Your task to perform on an android device: toggle pop-ups in chrome Image 0: 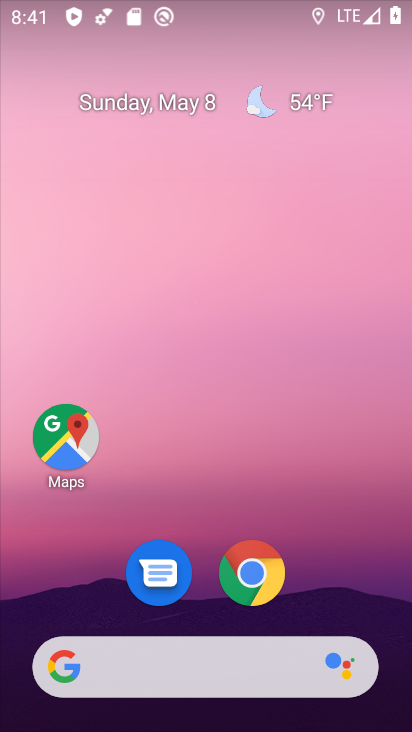
Step 0: click (256, 577)
Your task to perform on an android device: toggle pop-ups in chrome Image 1: 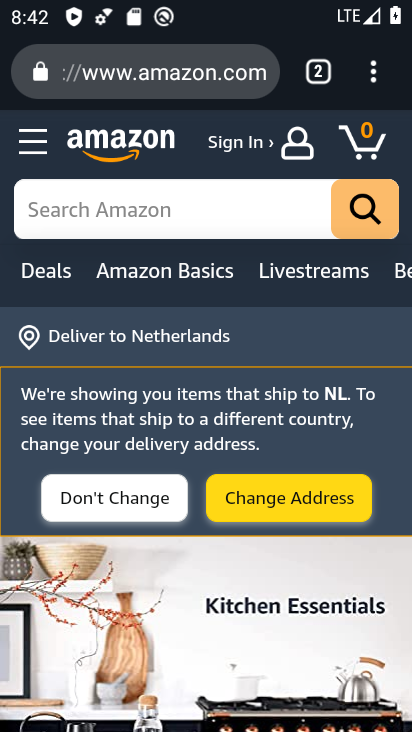
Step 1: click (375, 83)
Your task to perform on an android device: toggle pop-ups in chrome Image 2: 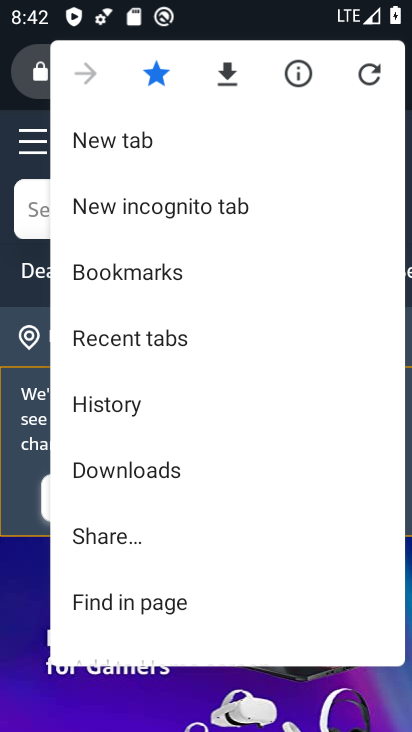
Step 2: drag from (154, 592) to (151, 267)
Your task to perform on an android device: toggle pop-ups in chrome Image 3: 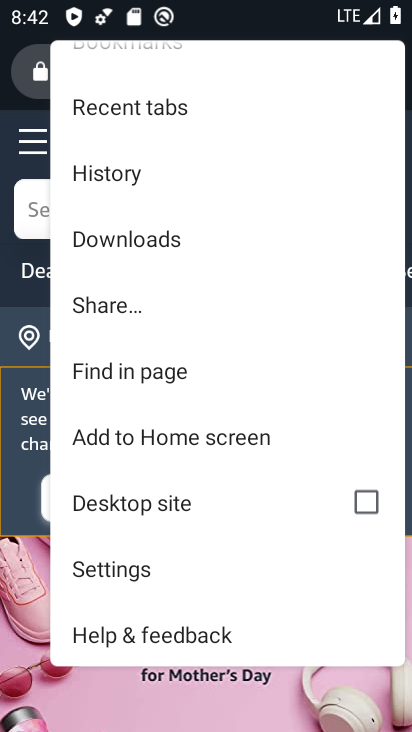
Step 3: click (115, 567)
Your task to perform on an android device: toggle pop-ups in chrome Image 4: 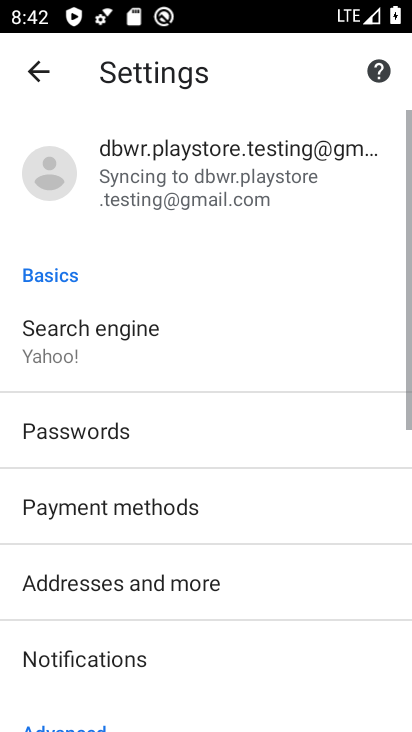
Step 4: drag from (175, 680) to (161, 373)
Your task to perform on an android device: toggle pop-ups in chrome Image 5: 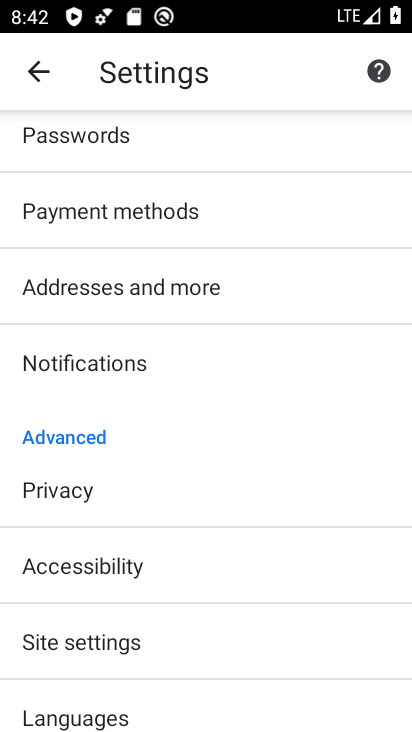
Step 5: click (86, 642)
Your task to perform on an android device: toggle pop-ups in chrome Image 6: 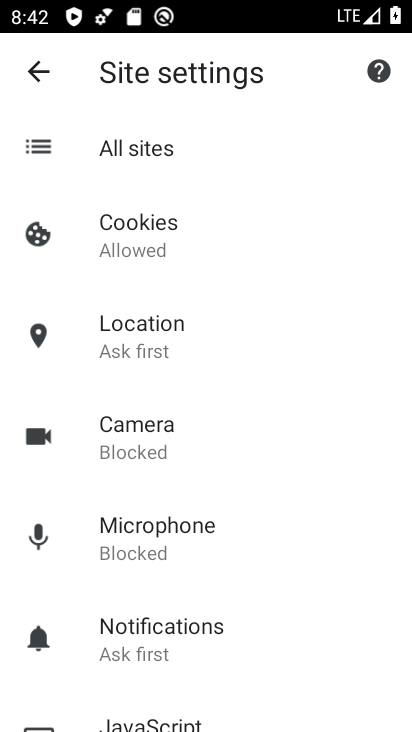
Step 6: drag from (180, 680) to (170, 372)
Your task to perform on an android device: toggle pop-ups in chrome Image 7: 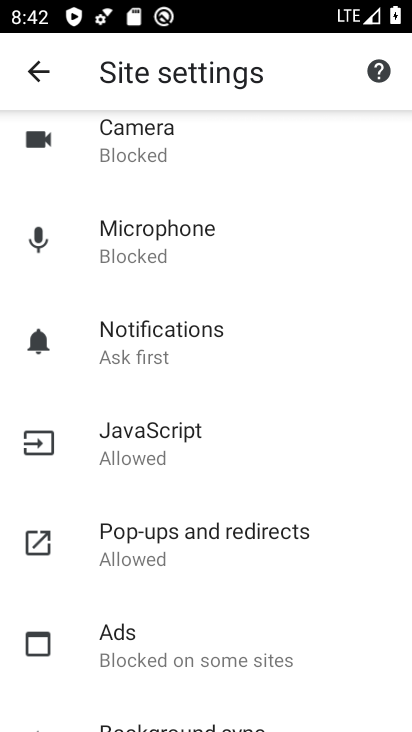
Step 7: click (163, 538)
Your task to perform on an android device: toggle pop-ups in chrome Image 8: 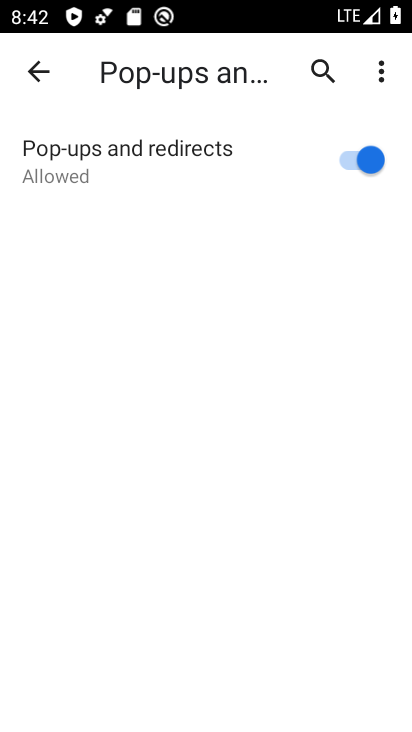
Step 8: click (345, 163)
Your task to perform on an android device: toggle pop-ups in chrome Image 9: 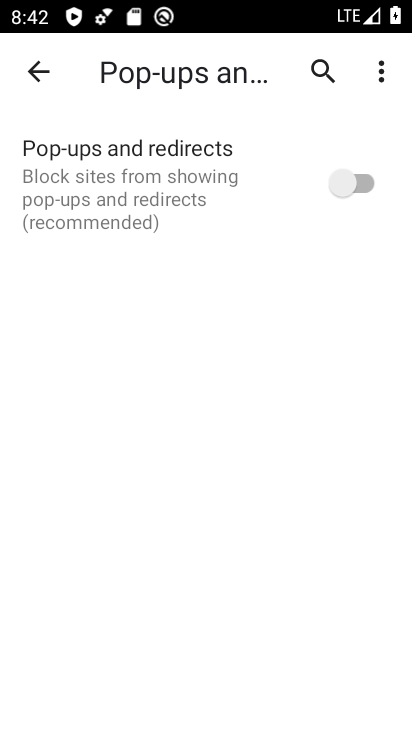
Step 9: task complete